Your task to perform on an android device: Search for "bose quietcomfort 35" on ebay.com, select the first entry, add it to the cart, then select checkout. Image 0: 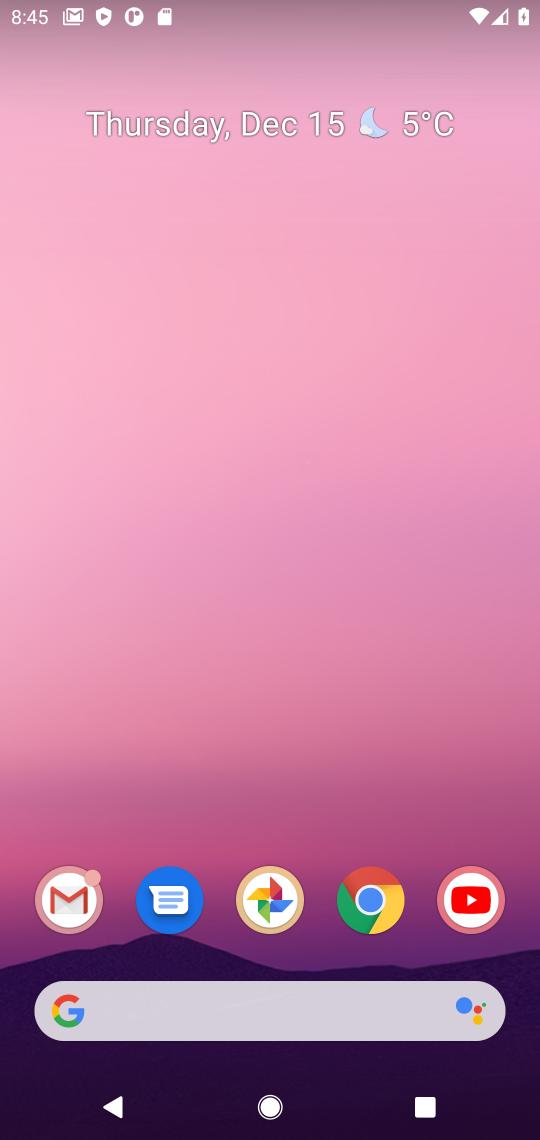
Step 0: click (381, 906)
Your task to perform on an android device: Search for "bose quietcomfort 35" on ebay.com, select the first entry, add it to the cart, then select checkout. Image 1: 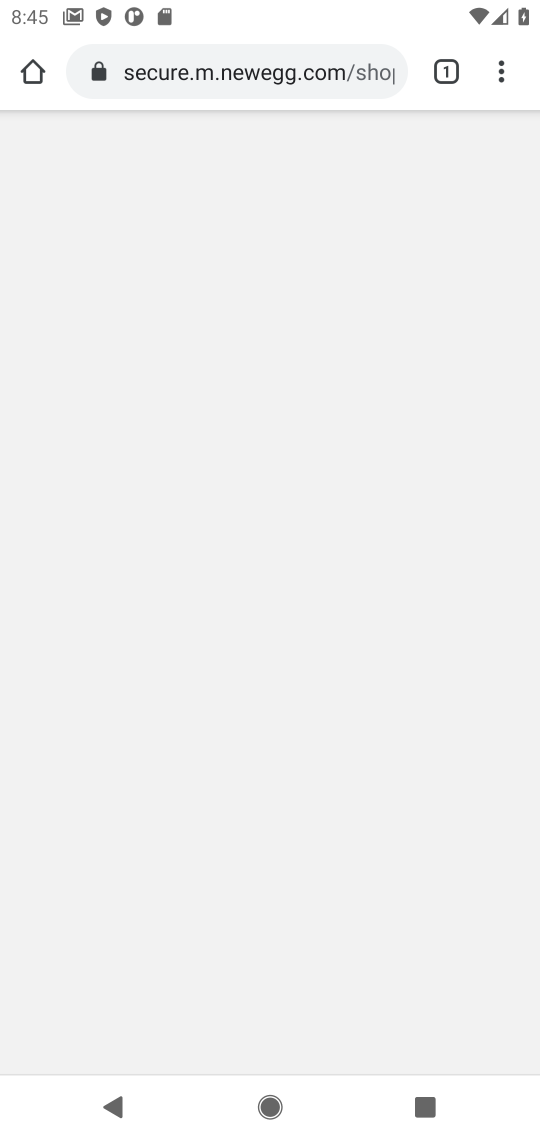
Step 1: click (152, 85)
Your task to perform on an android device: Search for "bose quietcomfort 35" on ebay.com, select the first entry, add it to the cart, then select checkout. Image 2: 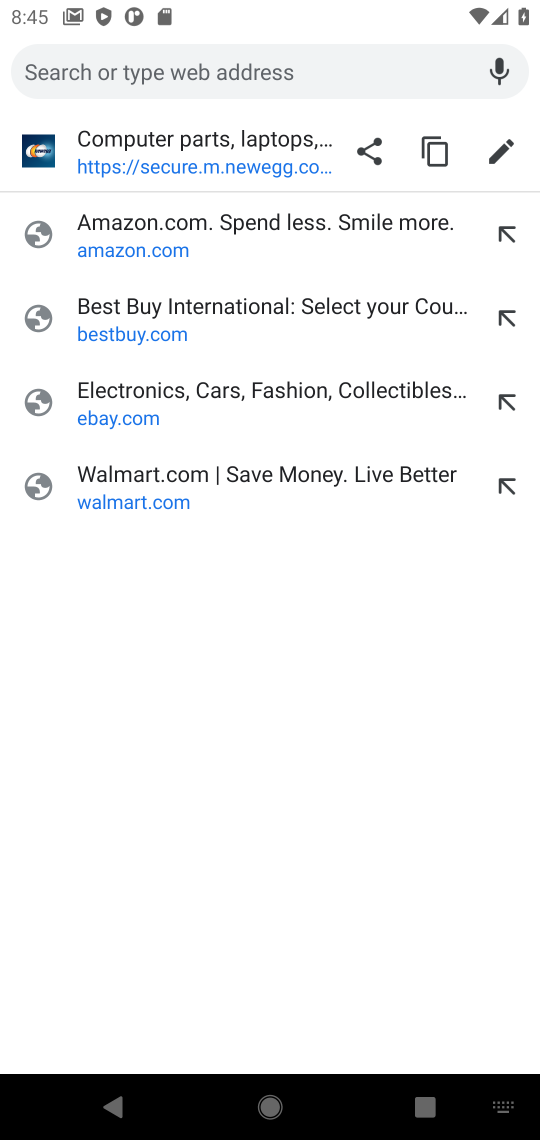
Step 2: type "ebay.com"
Your task to perform on an android device: Search for "bose quietcomfort 35" on ebay.com, select the first entry, add it to the cart, then select checkout. Image 3: 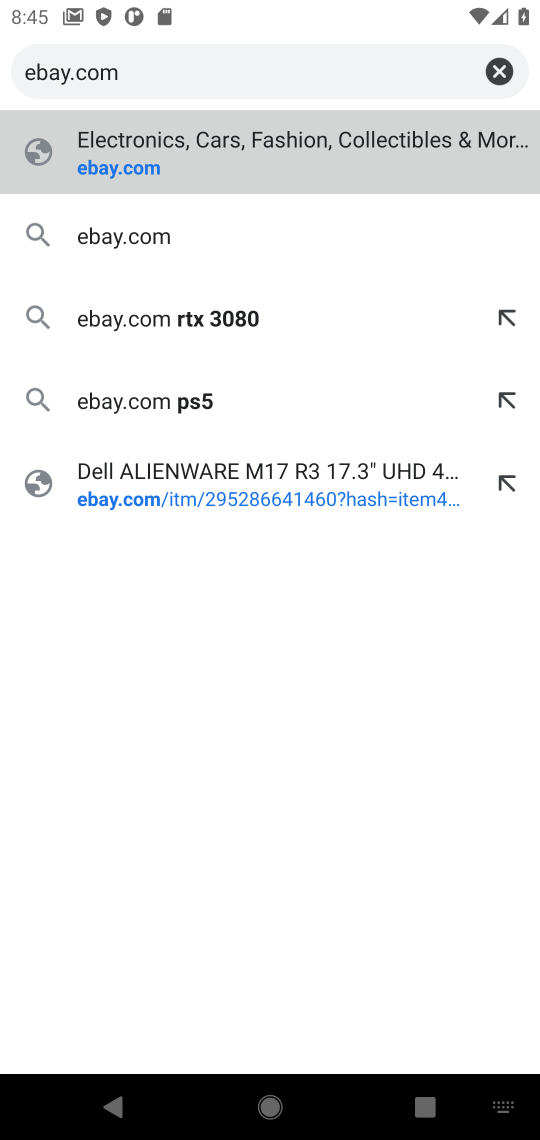
Step 3: click (163, 152)
Your task to perform on an android device: Search for "bose quietcomfort 35" on ebay.com, select the first entry, add it to the cart, then select checkout. Image 4: 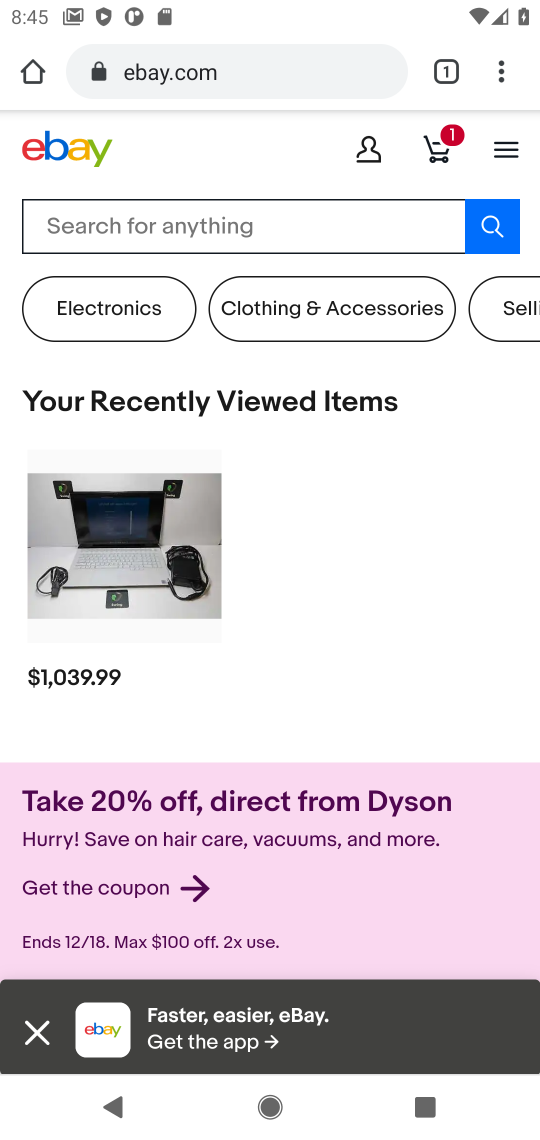
Step 4: drag from (372, 760) to (346, 481)
Your task to perform on an android device: Search for "bose quietcomfort 35" on ebay.com, select the first entry, add it to the cart, then select checkout. Image 5: 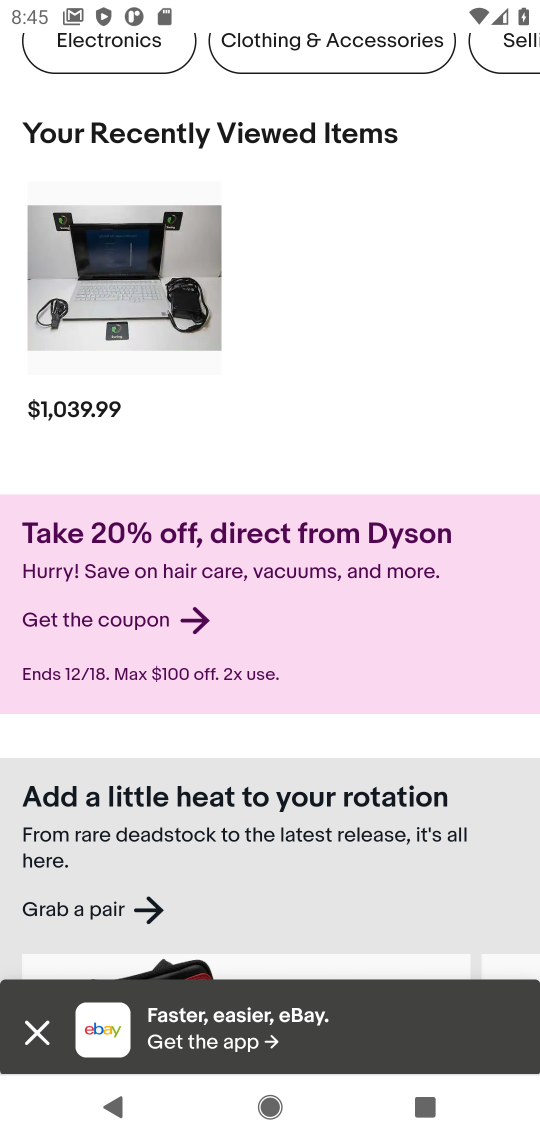
Step 5: drag from (437, 361) to (361, 869)
Your task to perform on an android device: Search for "bose quietcomfort 35" on ebay.com, select the first entry, add it to the cart, then select checkout. Image 6: 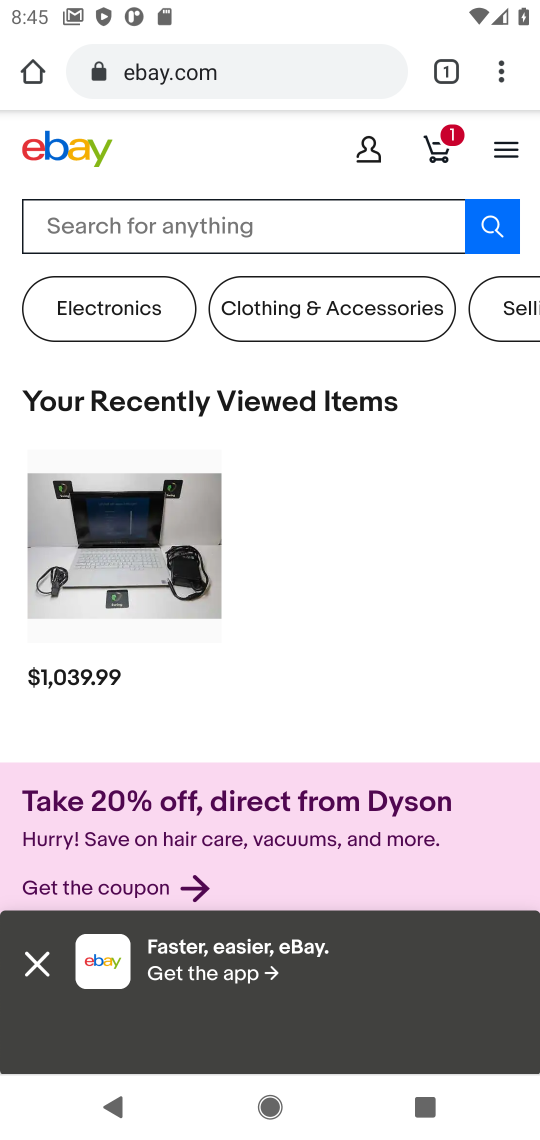
Step 6: click (149, 227)
Your task to perform on an android device: Search for "bose quietcomfort 35" on ebay.com, select the first entry, add it to the cart, then select checkout. Image 7: 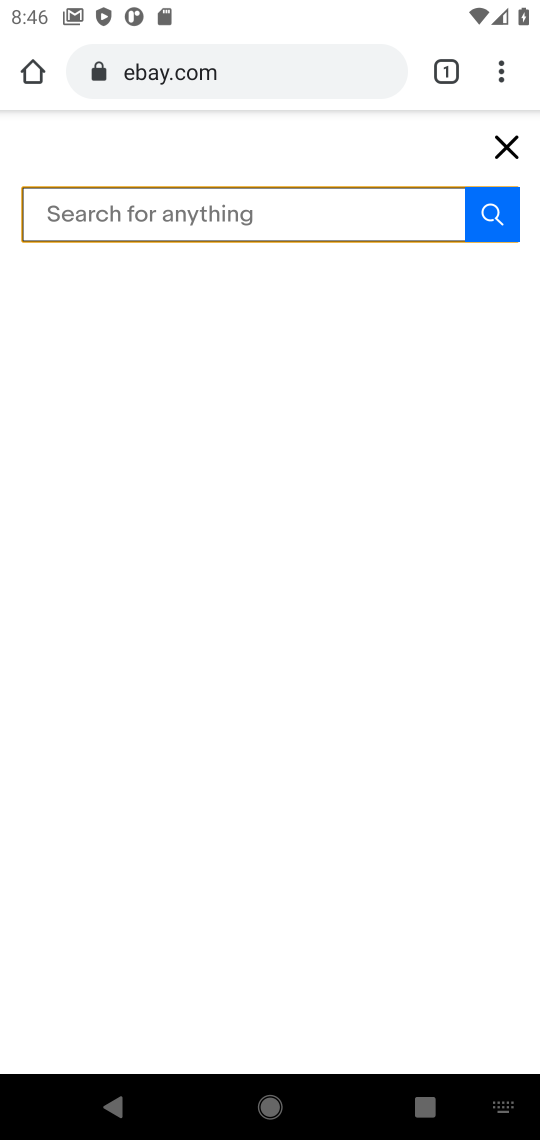
Step 7: type "bose quietcomfort 35"
Your task to perform on an android device: Search for "bose quietcomfort 35" on ebay.com, select the first entry, add it to the cart, then select checkout. Image 8: 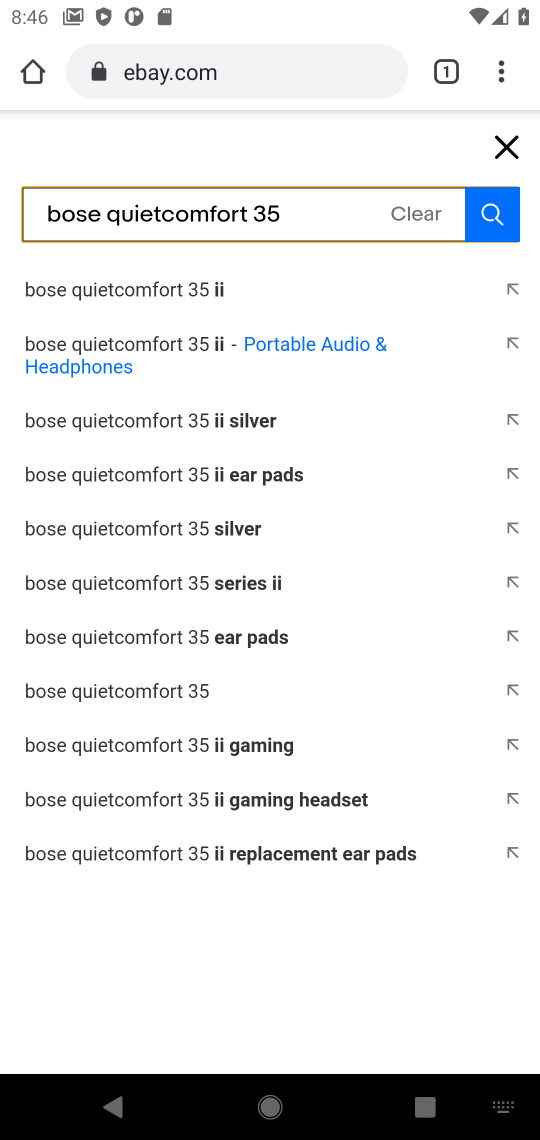
Step 8: click (487, 235)
Your task to perform on an android device: Search for "bose quietcomfort 35" on ebay.com, select the first entry, add it to the cart, then select checkout. Image 9: 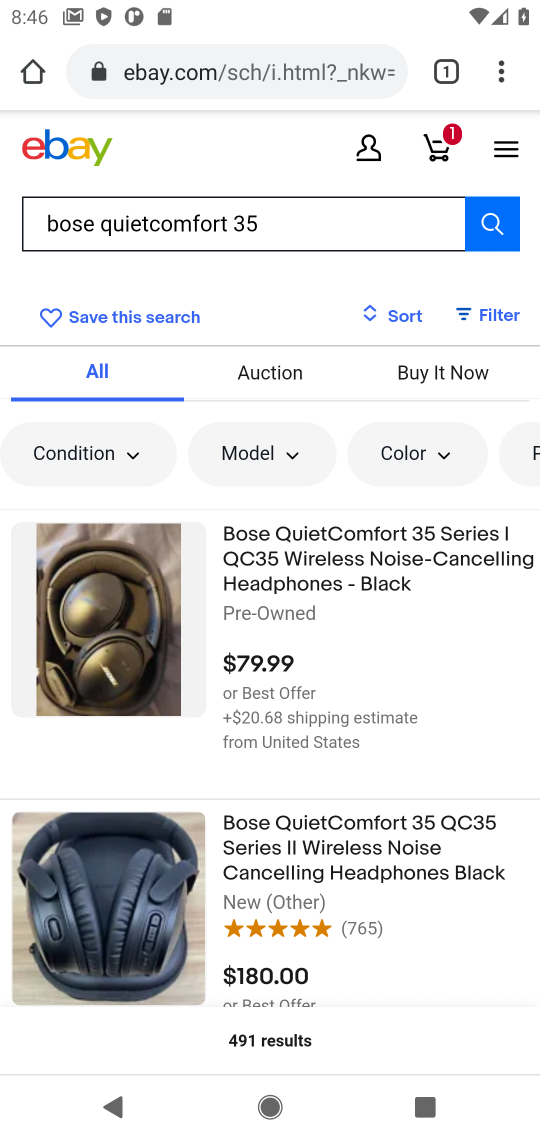
Step 9: click (283, 581)
Your task to perform on an android device: Search for "bose quietcomfort 35" on ebay.com, select the first entry, add it to the cart, then select checkout. Image 10: 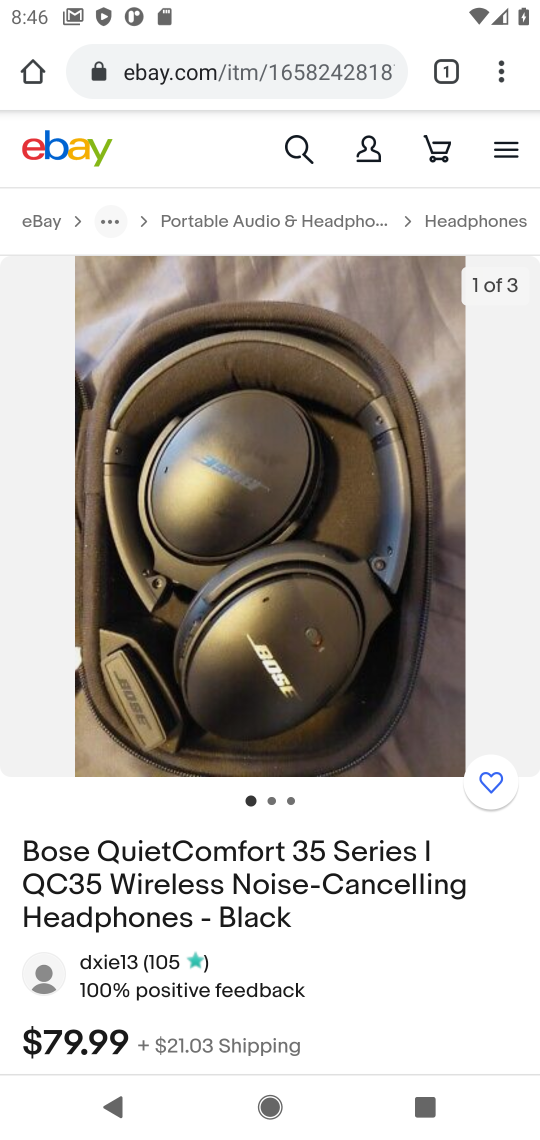
Step 10: drag from (437, 874) to (164, 151)
Your task to perform on an android device: Search for "bose quietcomfort 35" on ebay.com, select the first entry, add it to the cart, then select checkout. Image 11: 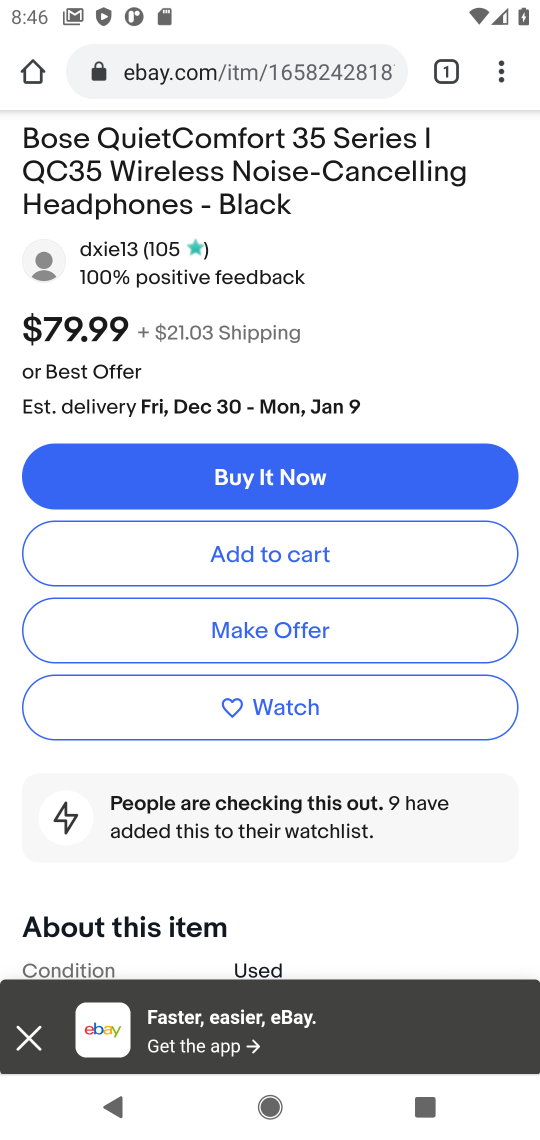
Step 11: click (223, 568)
Your task to perform on an android device: Search for "bose quietcomfort 35" on ebay.com, select the first entry, add it to the cart, then select checkout. Image 12: 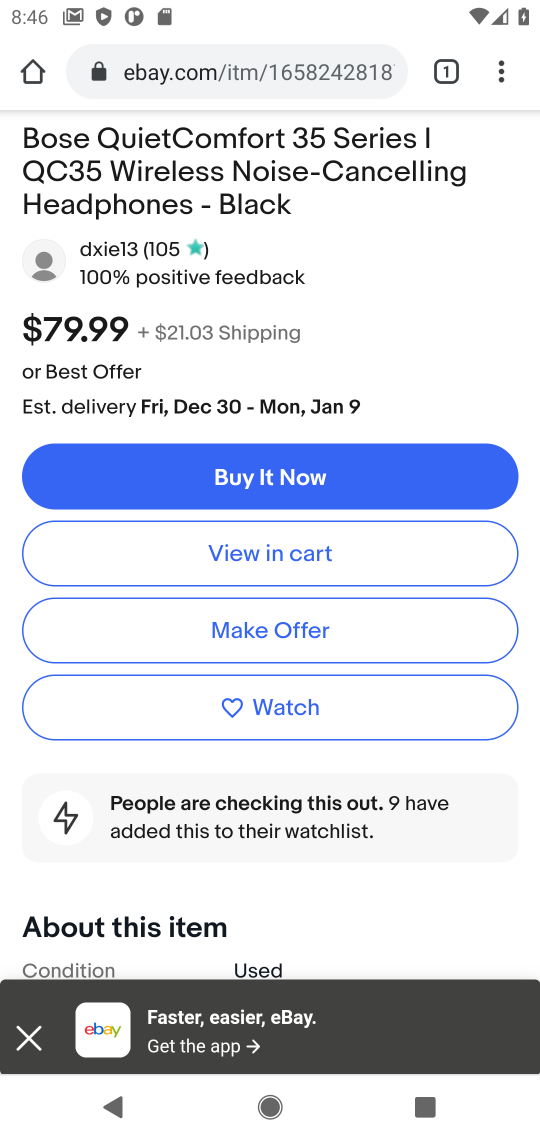
Step 12: click (223, 568)
Your task to perform on an android device: Search for "bose quietcomfort 35" on ebay.com, select the first entry, add it to the cart, then select checkout. Image 13: 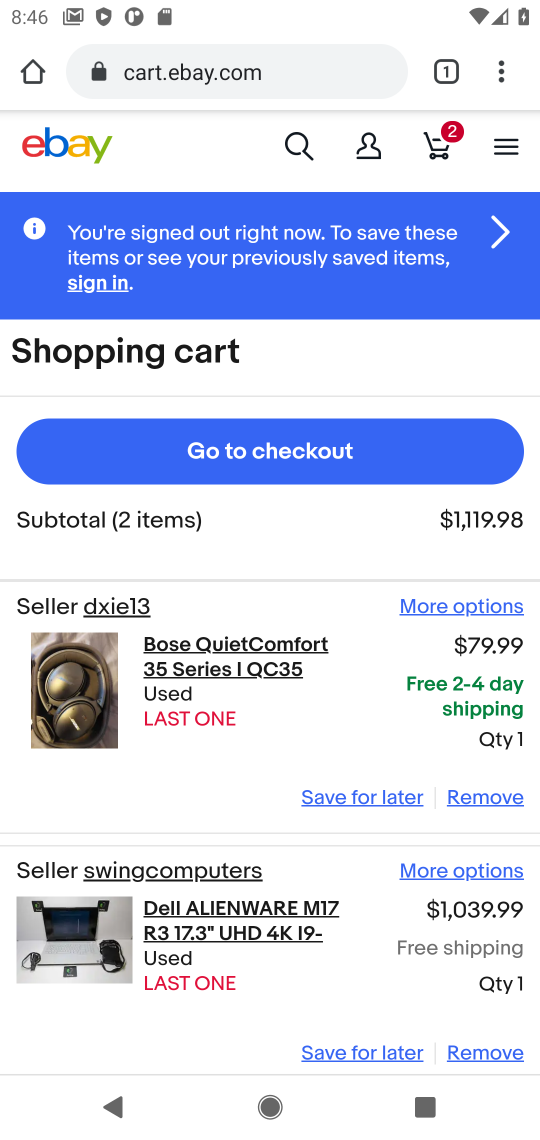
Step 13: click (268, 448)
Your task to perform on an android device: Search for "bose quietcomfort 35" on ebay.com, select the first entry, add it to the cart, then select checkout. Image 14: 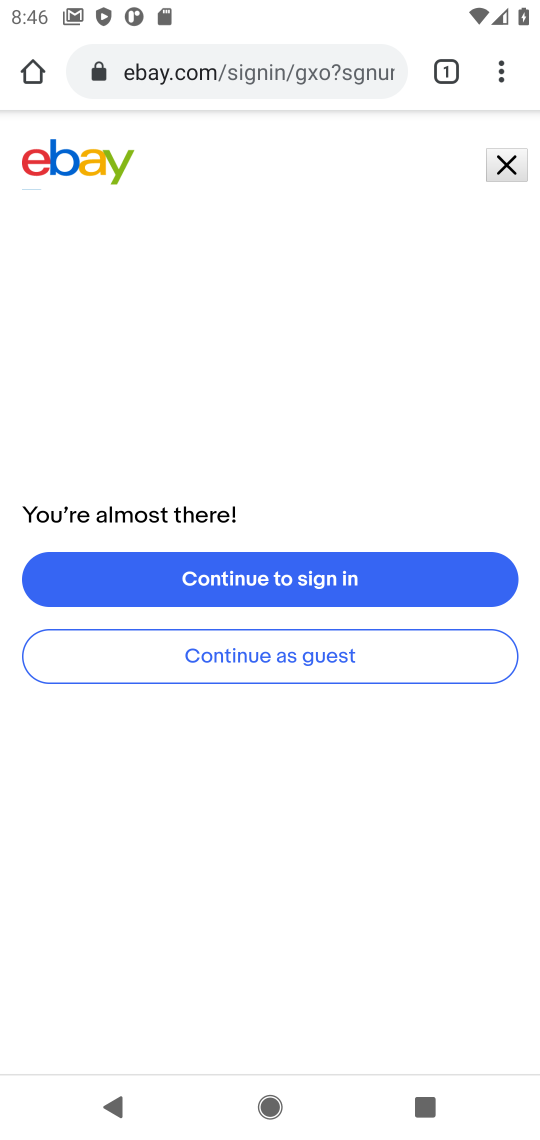
Step 14: task complete